Your task to perform on an android device: add a contact Image 0: 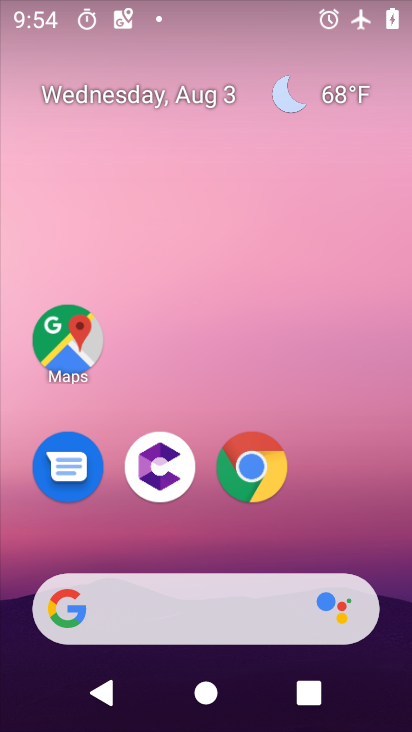
Step 0: drag from (373, 456) to (366, 120)
Your task to perform on an android device: add a contact Image 1: 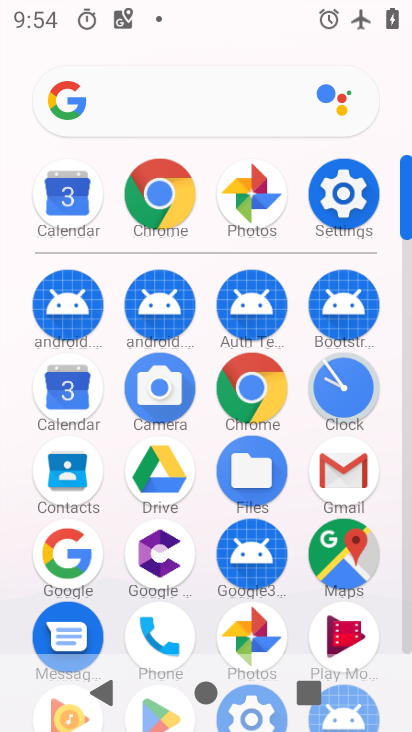
Step 1: click (69, 474)
Your task to perform on an android device: add a contact Image 2: 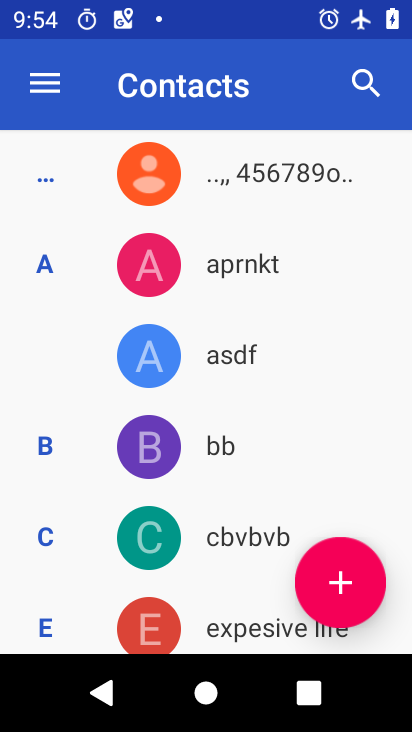
Step 2: click (332, 591)
Your task to perform on an android device: add a contact Image 3: 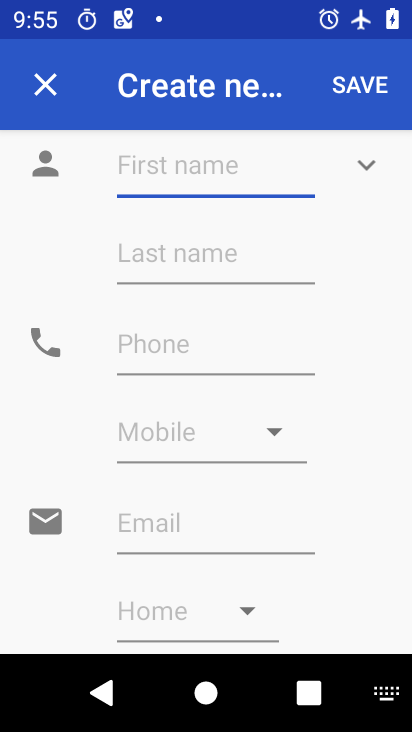
Step 3: type "india"
Your task to perform on an android device: add a contact Image 4: 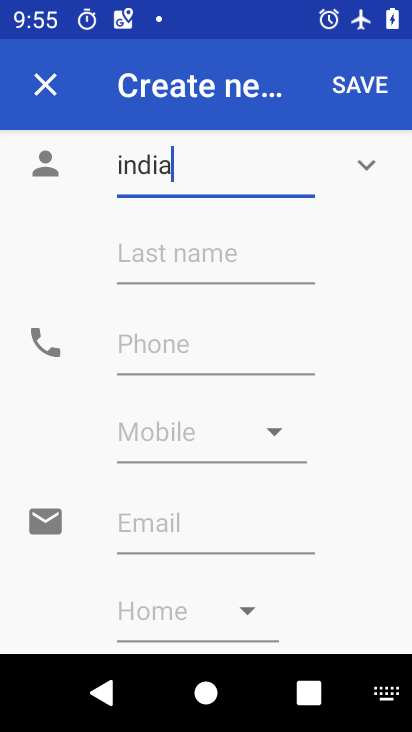
Step 4: click (346, 89)
Your task to perform on an android device: add a contact Image 5: 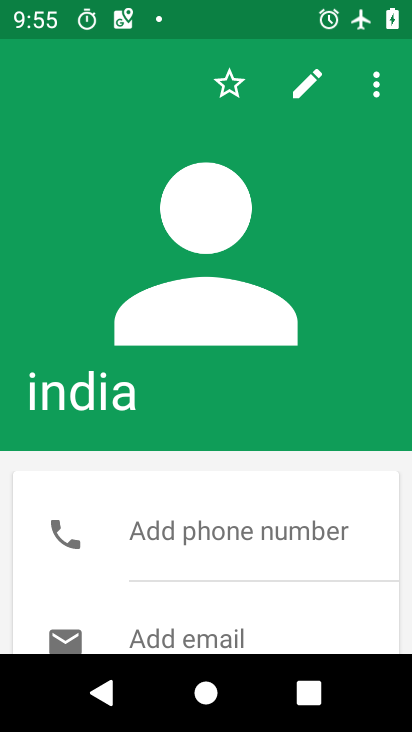
Step 5: task complete